Your task to perform on an android device: Go to display settings Image 0: 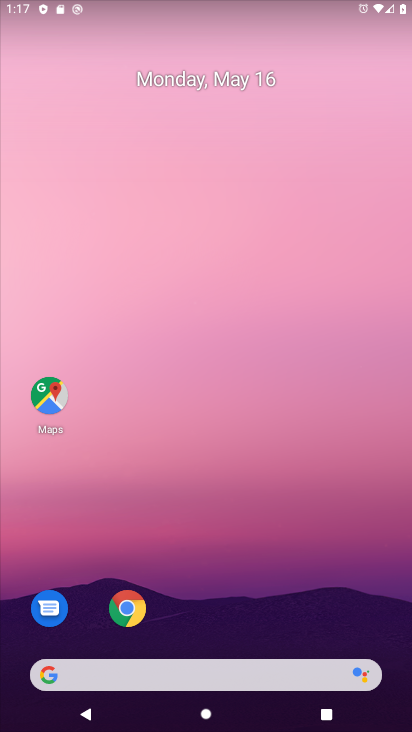
Step 0: drag from (274, 626) to (297, 165)
Your task to perform on an android device: Go to display settings Image 1: 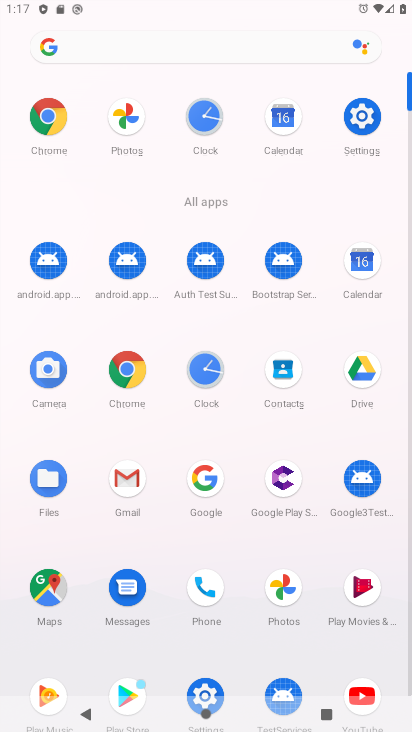
Step 1: click (367, 116)
Your task to perform on an android device: Go to display settings Image 2: 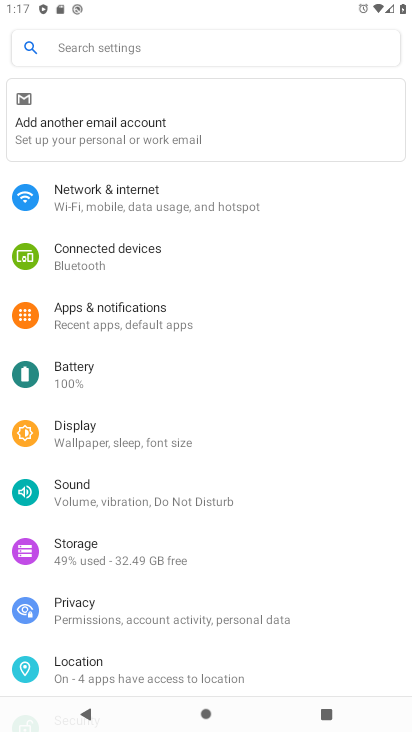
Step 2: click (73, 431)
Your task to perform on an android device: Go to display settings Image 3: 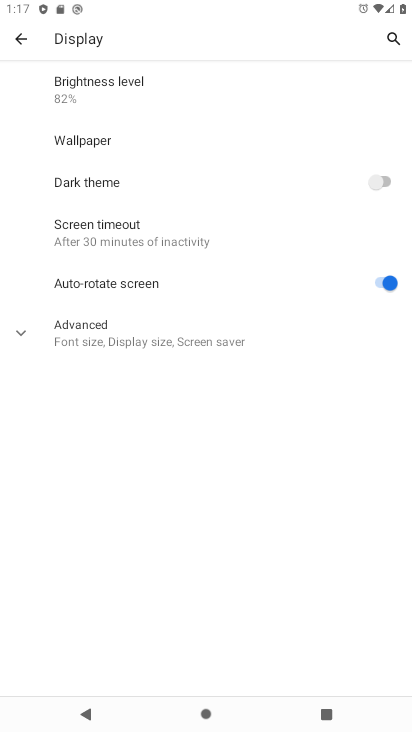
Step 3: task complete